Your task to perform on an android device: Open Google Chrome and open the bookmarks view Image 0: 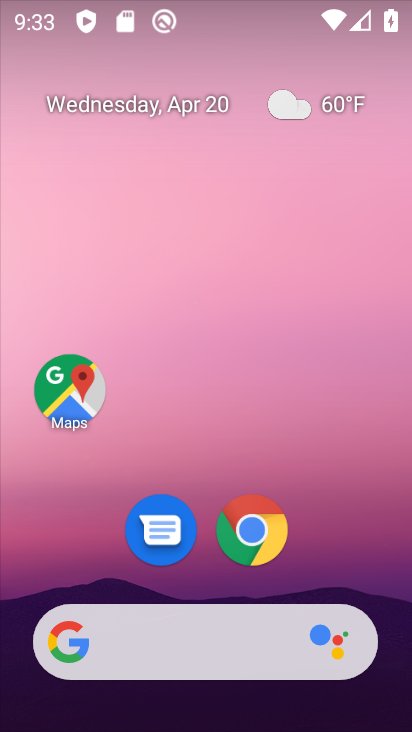
Step 0: click (251, 527)
Your task to perform on an android device: Open Google Chrome and open the bookmarks view Image 1: 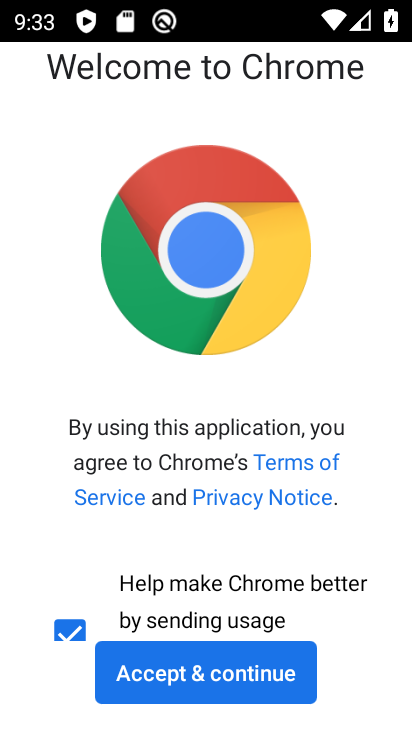
Step 1: click (228, 668)
Your task to perform on an android device: Open Google Chrome and open the bookmarks view Image 2: 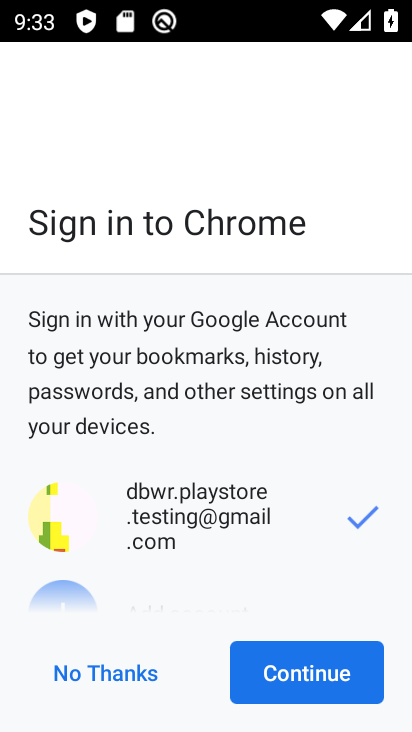
Step 2: click (268, 668)
Your task to perform on an android device: Open Google Chrome and open the bookmarks view Image 3: 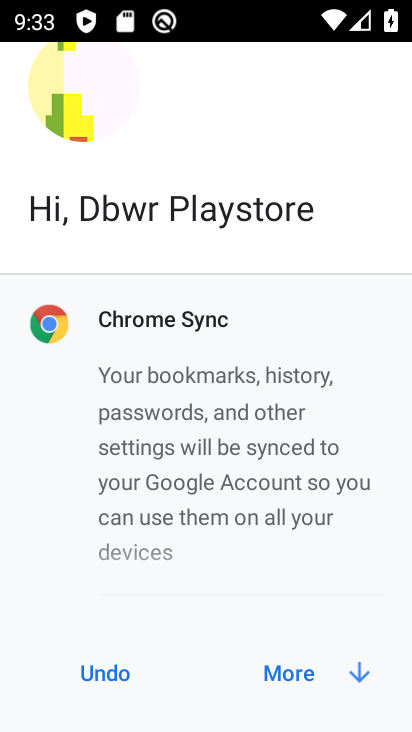
Step 3: click (268, 668)
Your task to perform on an android device: Open Google Chrome and open the bookmarks view Image 4: 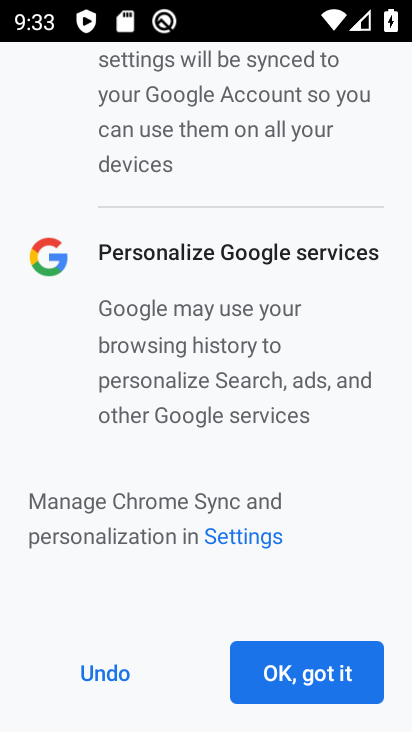
Step 4: click (268, 668)
Your task to perform on an android device: Open Google Chrome and open the bookmarks view Image 5: 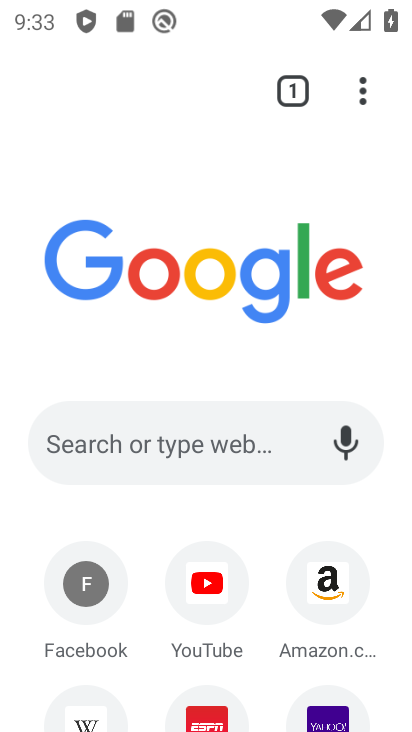
Step 5: click (361, 92)
Your task to perform on an android device: Open Google Chrome and open the bookmarks view Image 6: 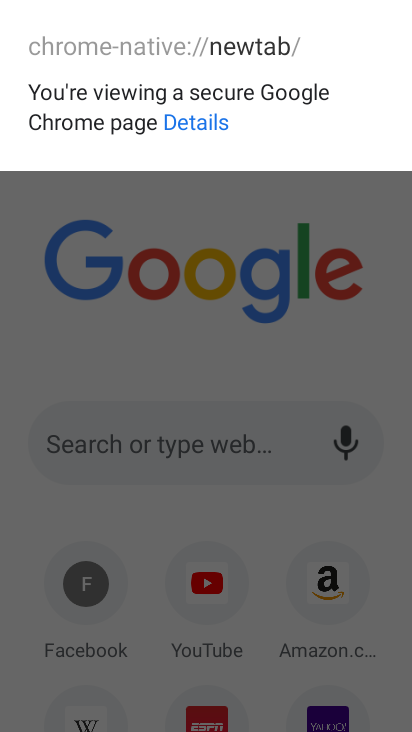
Step 6: click (319, 340)
Your task to perform on an android device: Open Google Chrome and open the bookmarks view Image 7: 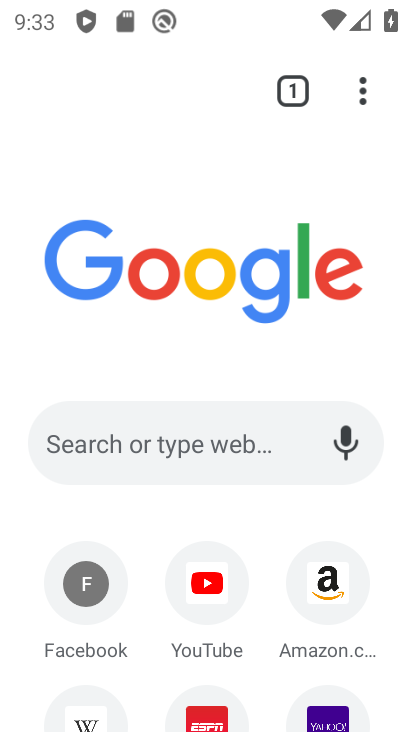
Step 7: click (364, 93)
Your task to perform on an android device: Open Google Chrome and open the bookmarks view Image 8: 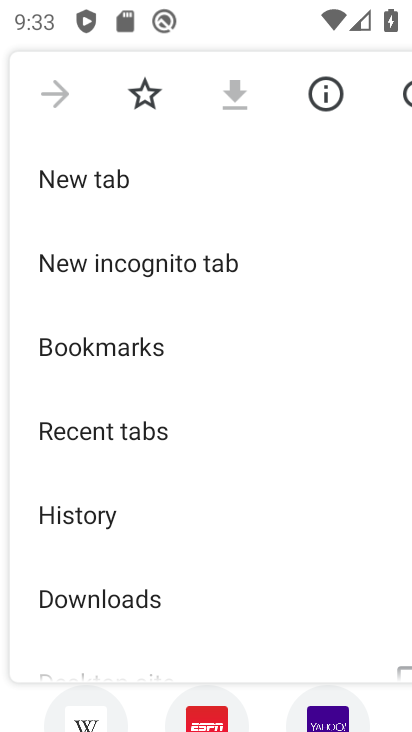
Step 8: click (161, 337)
Your task to perform on an android device: Open Google Chrome and open the bookmarks view Image 9: 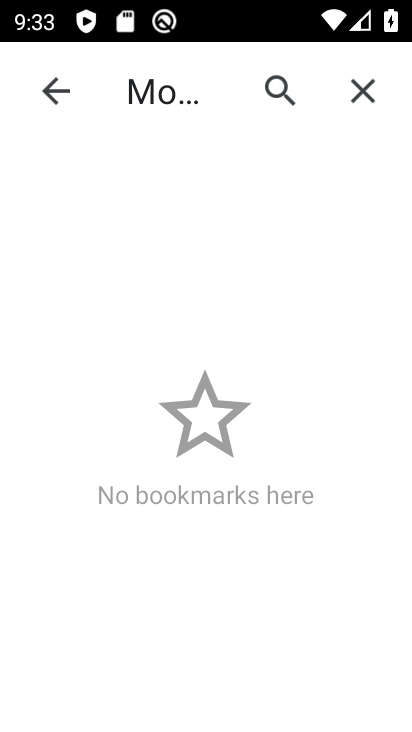
Step 9: task complete